Your task to perform on an android device: Open accessibility settings Image 0: 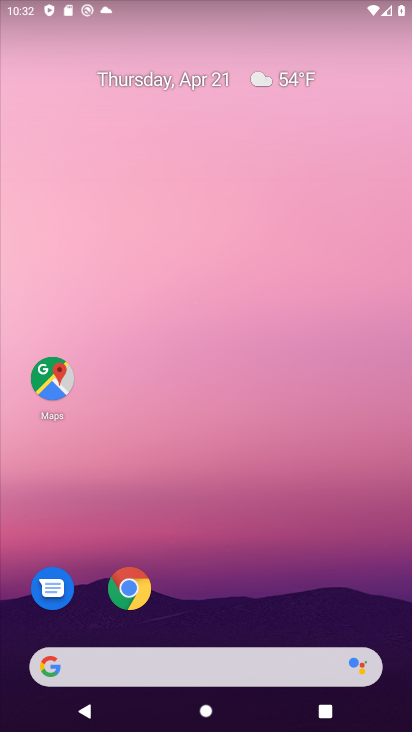
Step 0: drag from (325, 588) to (260, 3)
Your task to perform on an android device: Open accessibility settings Image 1: 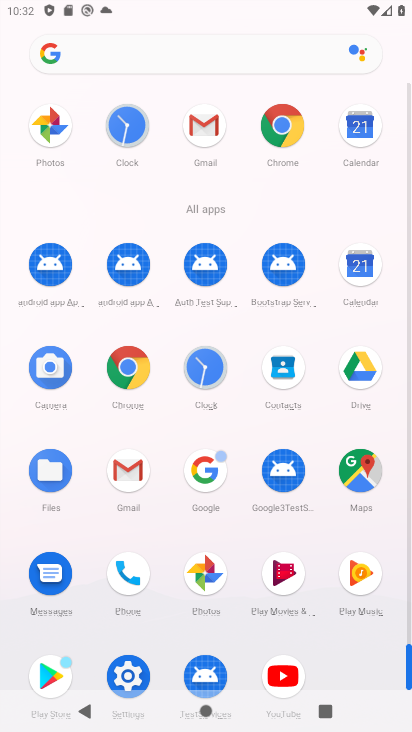
Step 1: click (123, 668)
Your task to perform on an android device: Open accessibility settings Image 2: 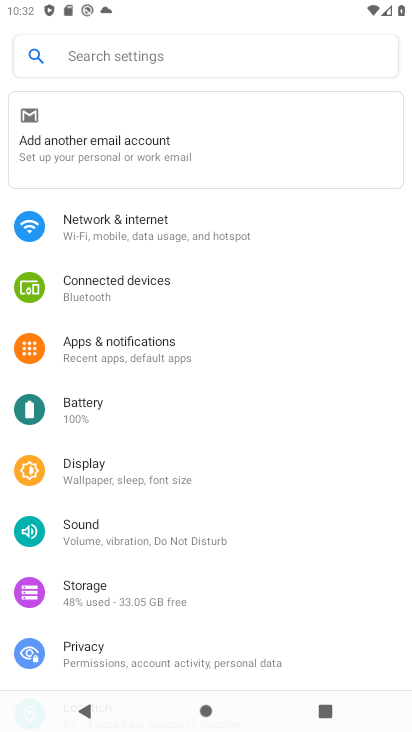
Step 2: drag from (176, 631) to (168, 156)
Your task to perform on an android device: Open accessibility settings Image 3: 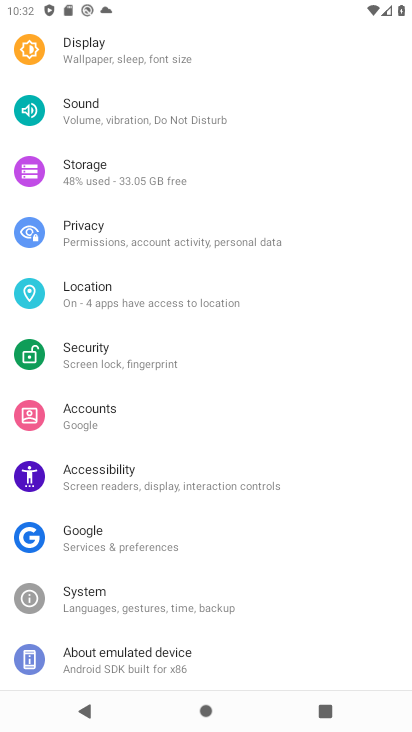
Step 3: click (153, 480)
Your task to perform on an android device: Open accessibility settings Image 4: 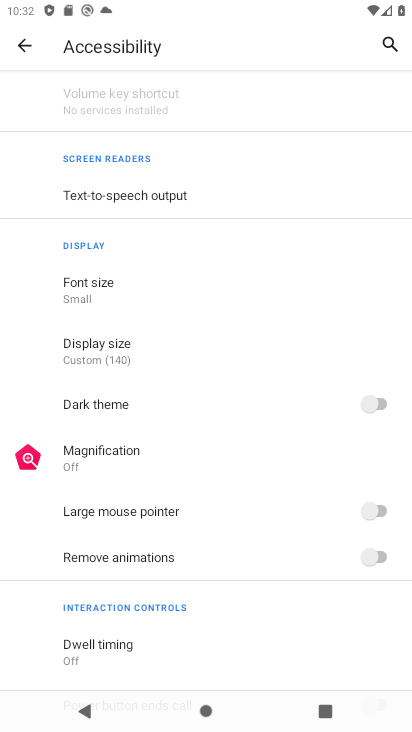
Step 4: task complete